Your task to perform on an android device: Open location settings Image 0: 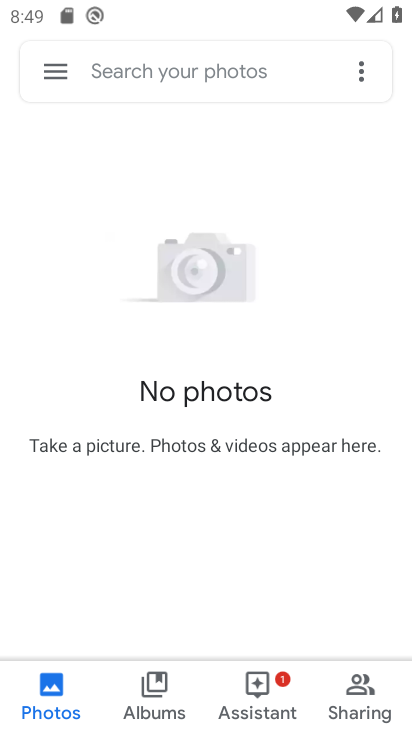
Step 0: press home button
Your task to perform on an android device: Open location settings Image 1: 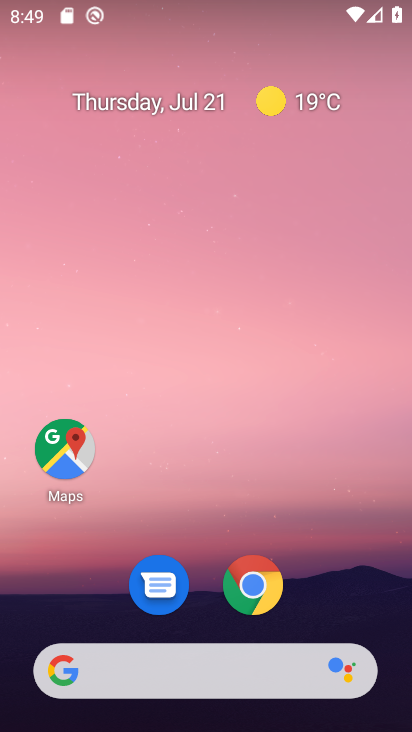
Step 1: drag from (336, 551) to (326, 49)
Your task to perform on an android device: Open location settings Image 2: 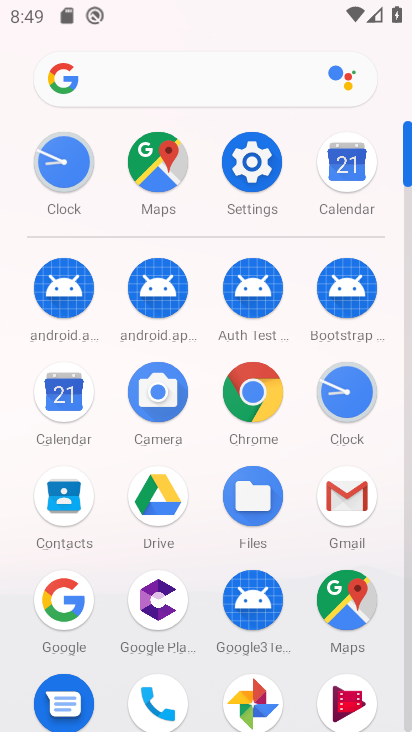
Step 2: click (258, 160)
Your task to perform on an android device: Open location settings Image 3: 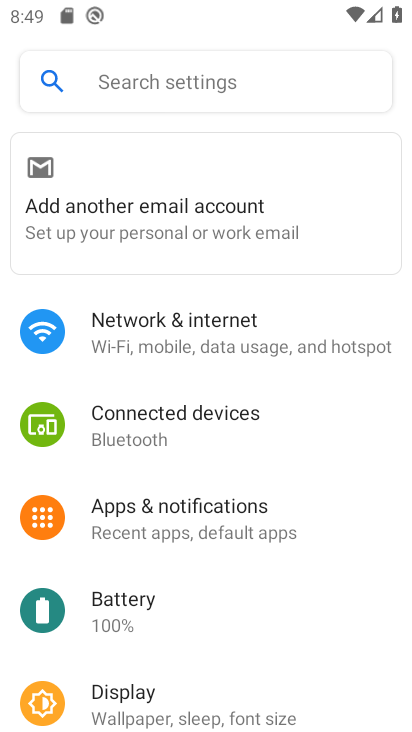
Step 3: drag from (223, 605) to (270, 137)
Your task to perform on an android device: Open location settings Image 4: 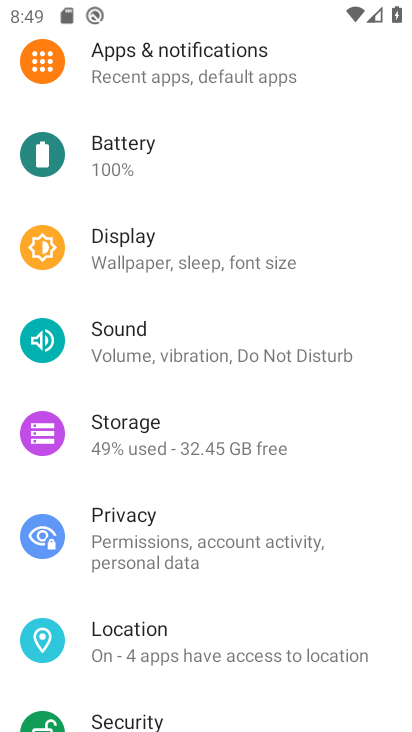
Step 4: drag from (215, 533) to (246, 317)
Your task to perform on an android device: Open location settings Image 5: 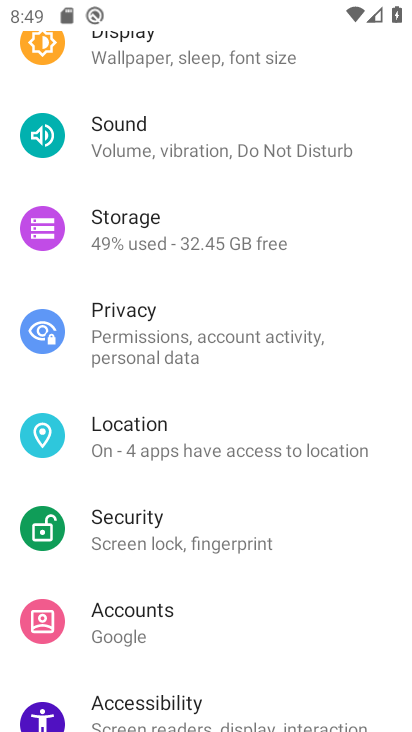
Step 5: click (231, 438)
Your task to perform on an android device: Open location settings Image 6: 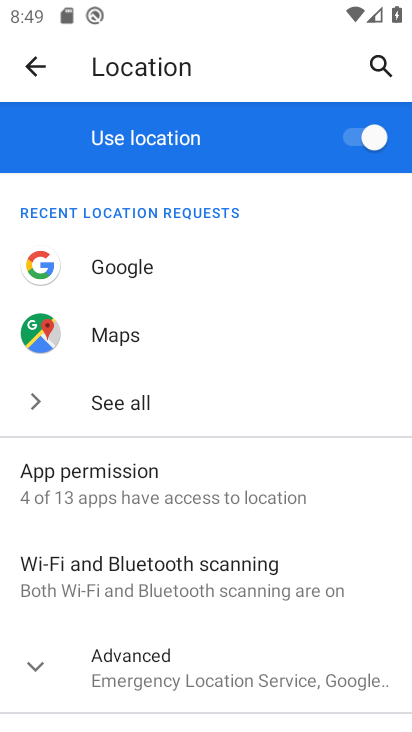
Step 6: task complete